Your task to perform on an android device: Open the web browser Image 0: 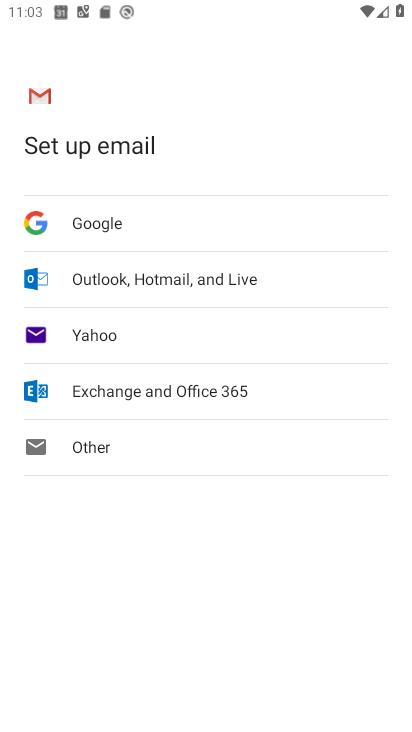
Step 0: press home button
Your task to perform on an android device: Open the web browser Image 1: 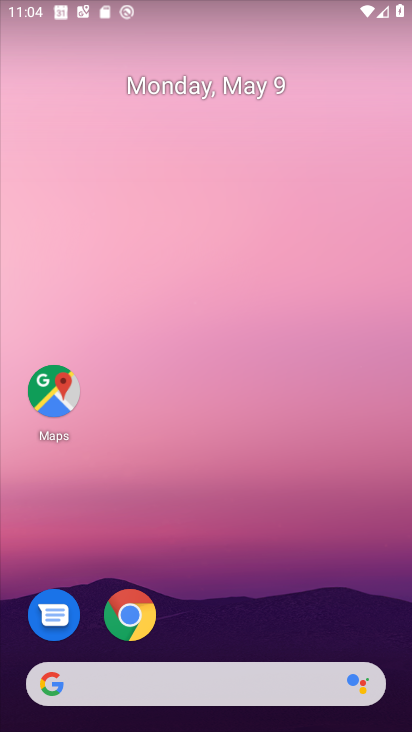
Step 1: drag from (300, 694) to (343, 218)
Your task to perform on an android device: Open the web browser Image 2: 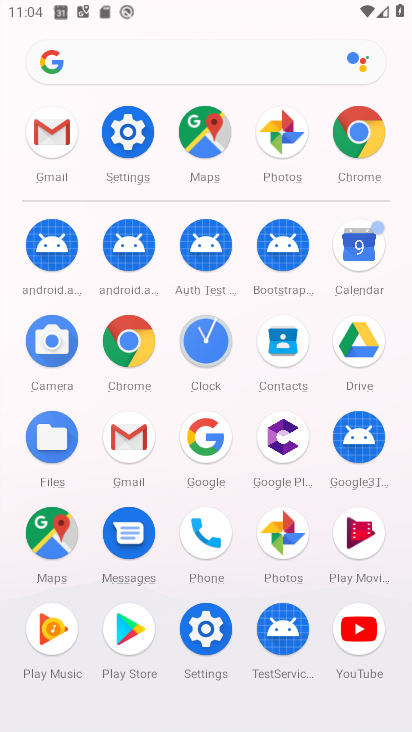
Step 2: click (367, 117)
Your task to perform on an android device: Open the web browser Image 3: 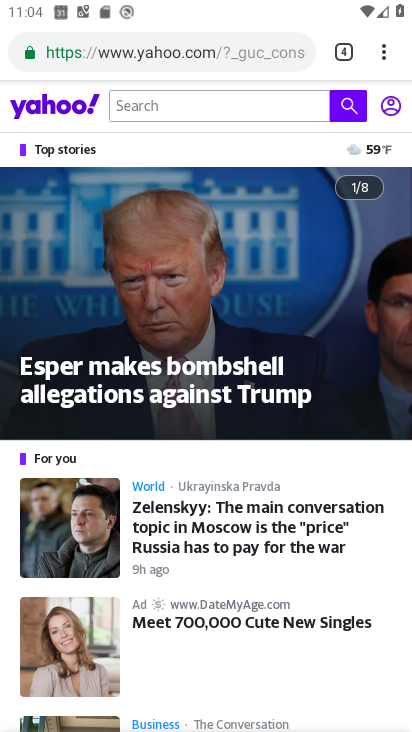
Step 3: click (165, 52)
Your task to perform on an android device: Open the web browser Image 4: 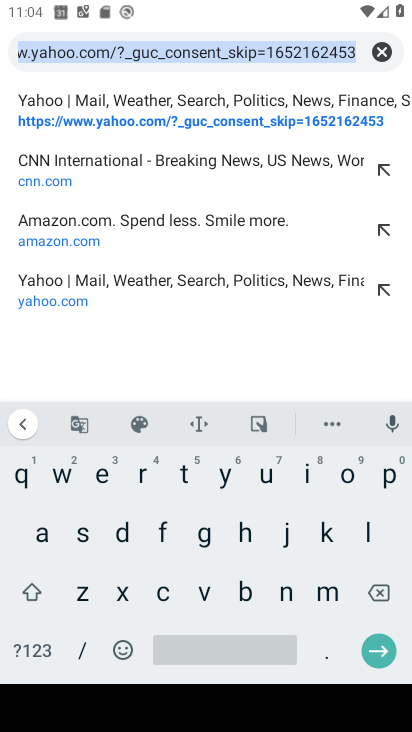
Step 4: click (377, 54)
Your task to perform on an android device: Open the web browser Image 5: 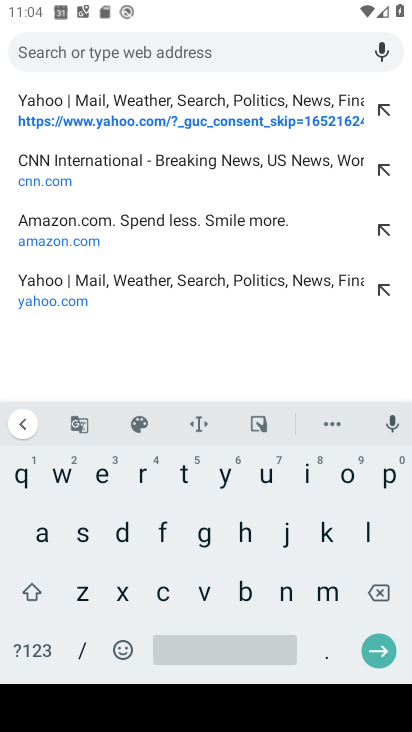
Step 5: task complete